Your task to perform on an android device: Show the shopping cart on amazon.com. Add lenovo thinkpad to the cart on amazon.com, then select checkout. Image 0: 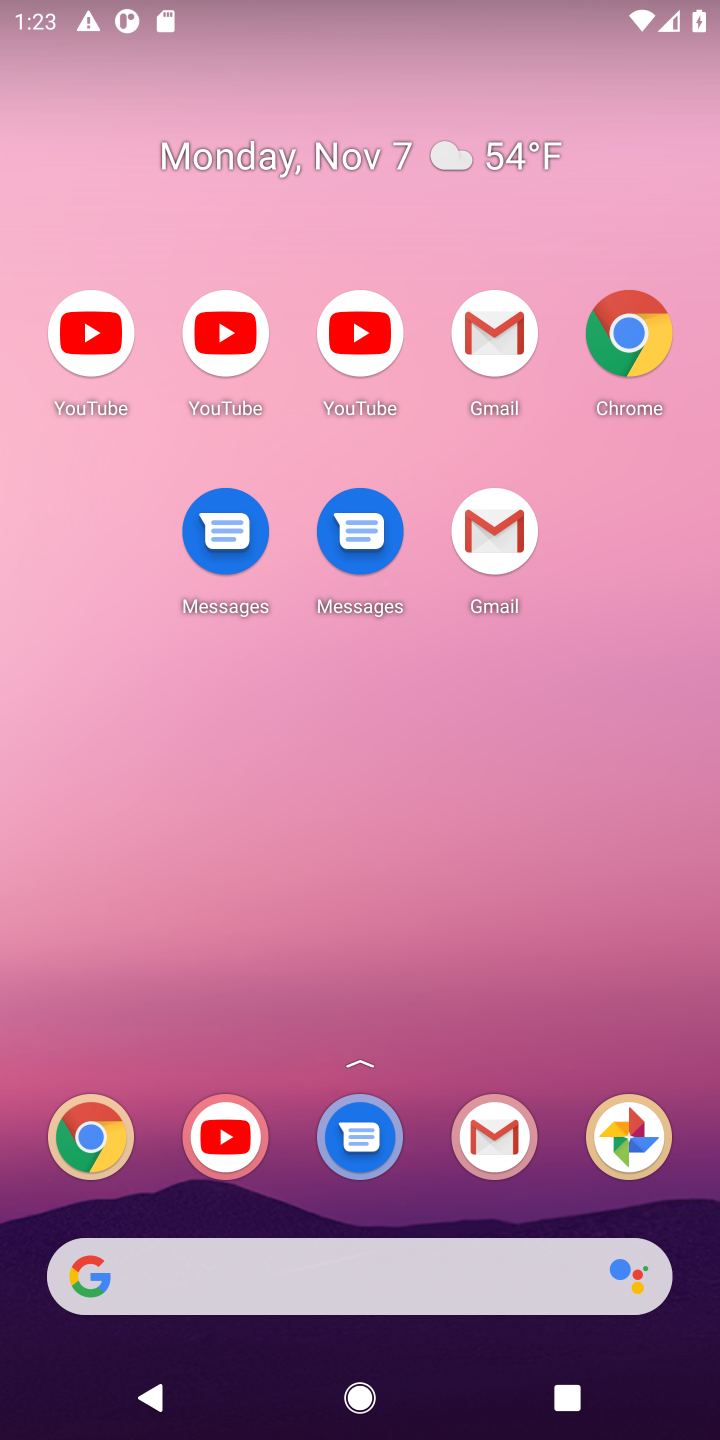
Step 0: drag from (408, 971) to (384, 80)
Your task to perform on an android device: Show the shopping cart on amazon.com. Add lenovo thinkpad to the cart on amazon.com, then select checkout. Image 1: 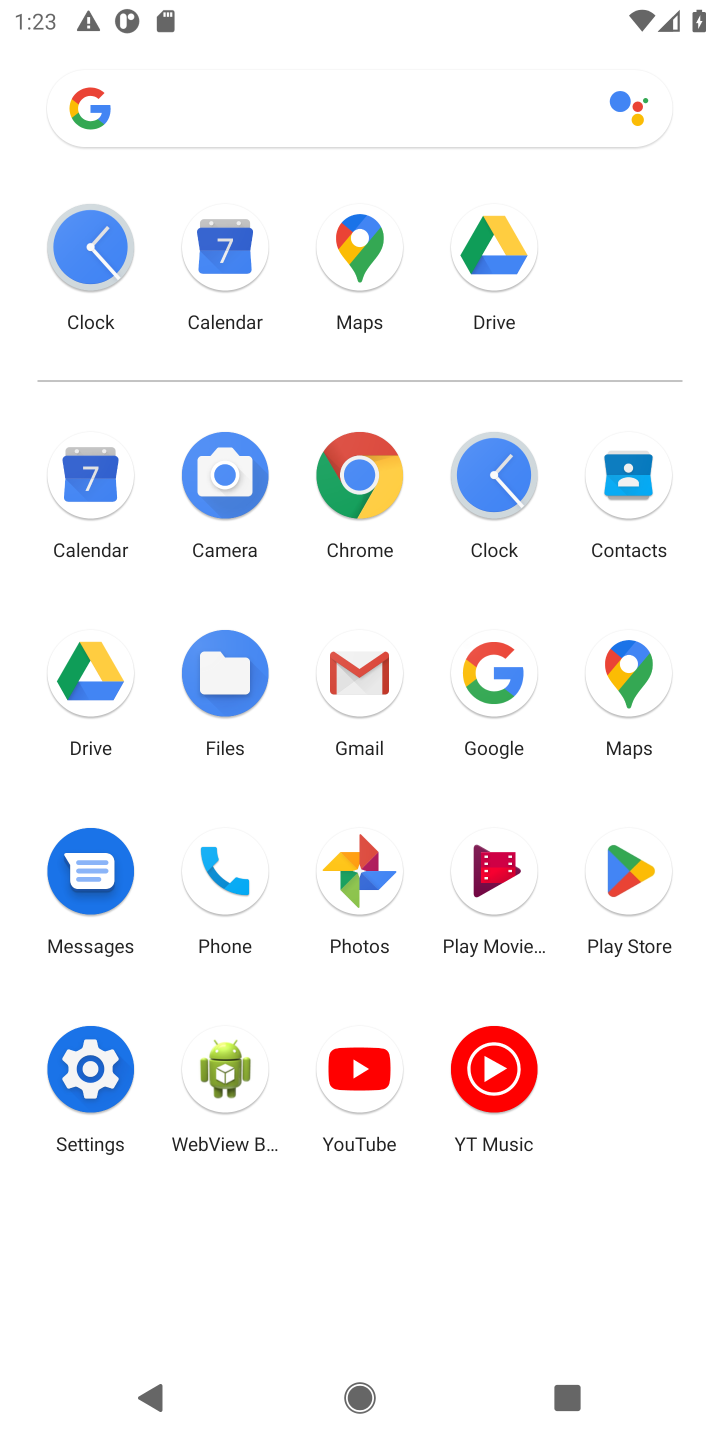
Step 1: click (357, 498)
Your task to perform on an android device: Show the shopping cart on amazon.com. Add lenovo thinkpad to the cart on amazon.com, then select checkout. Image 2: 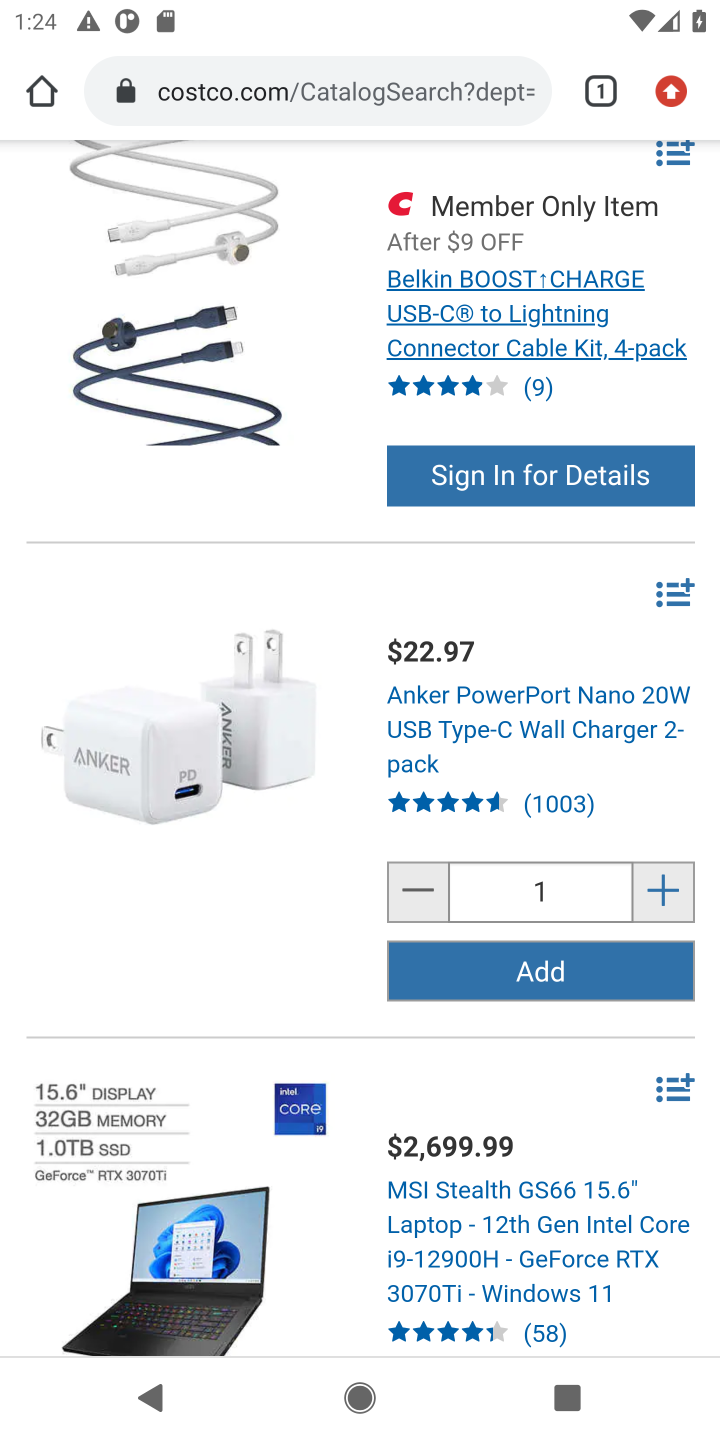
Step 2: click (390, 86)
Your task to perform on an android device: Show the shopping cart on amazon.com. Add lenovo thinkpad to the cart on amazon.com, then select checkout. Image 3: 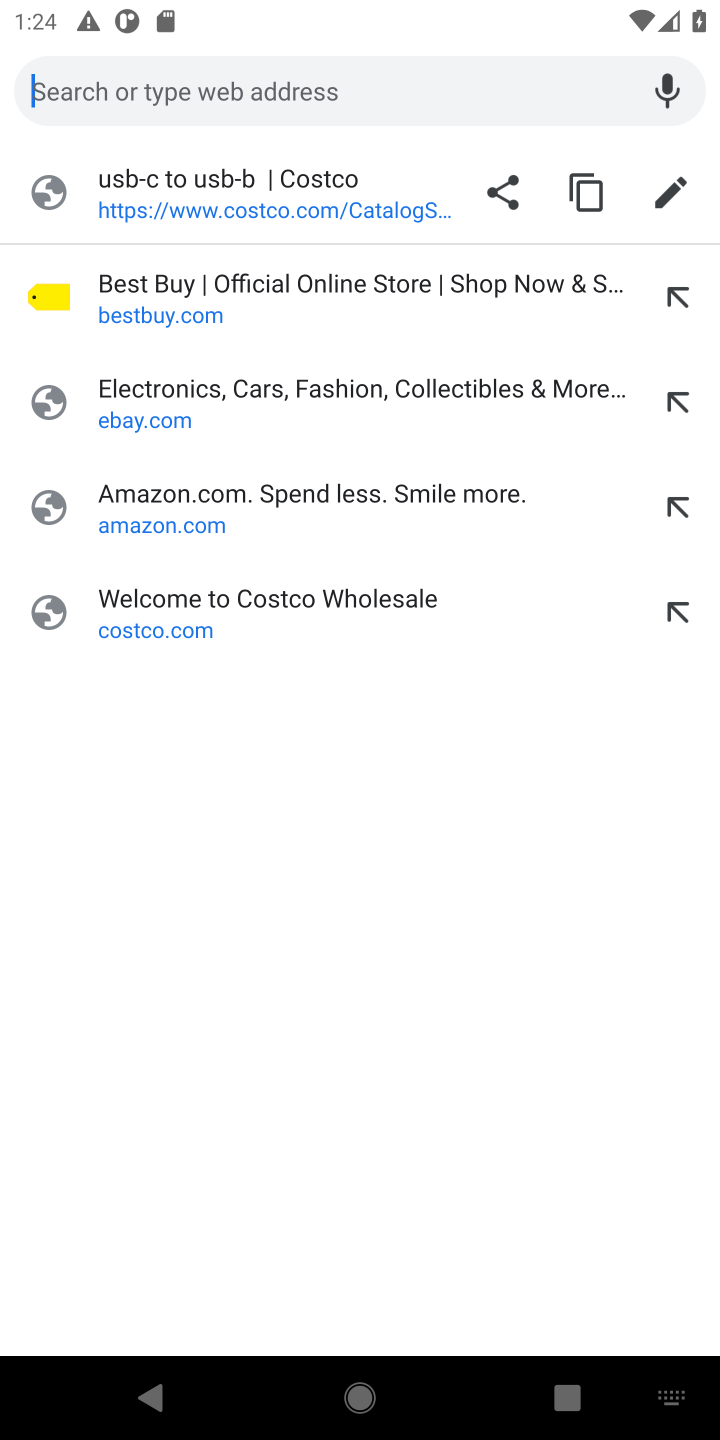
Step 3: type "amazon.com"
Your task to perform on an android device: Show the shopping cart on amazon.com. Add lenovo thinkpad to the cart on amazon.com, then select checkout. Image 4: 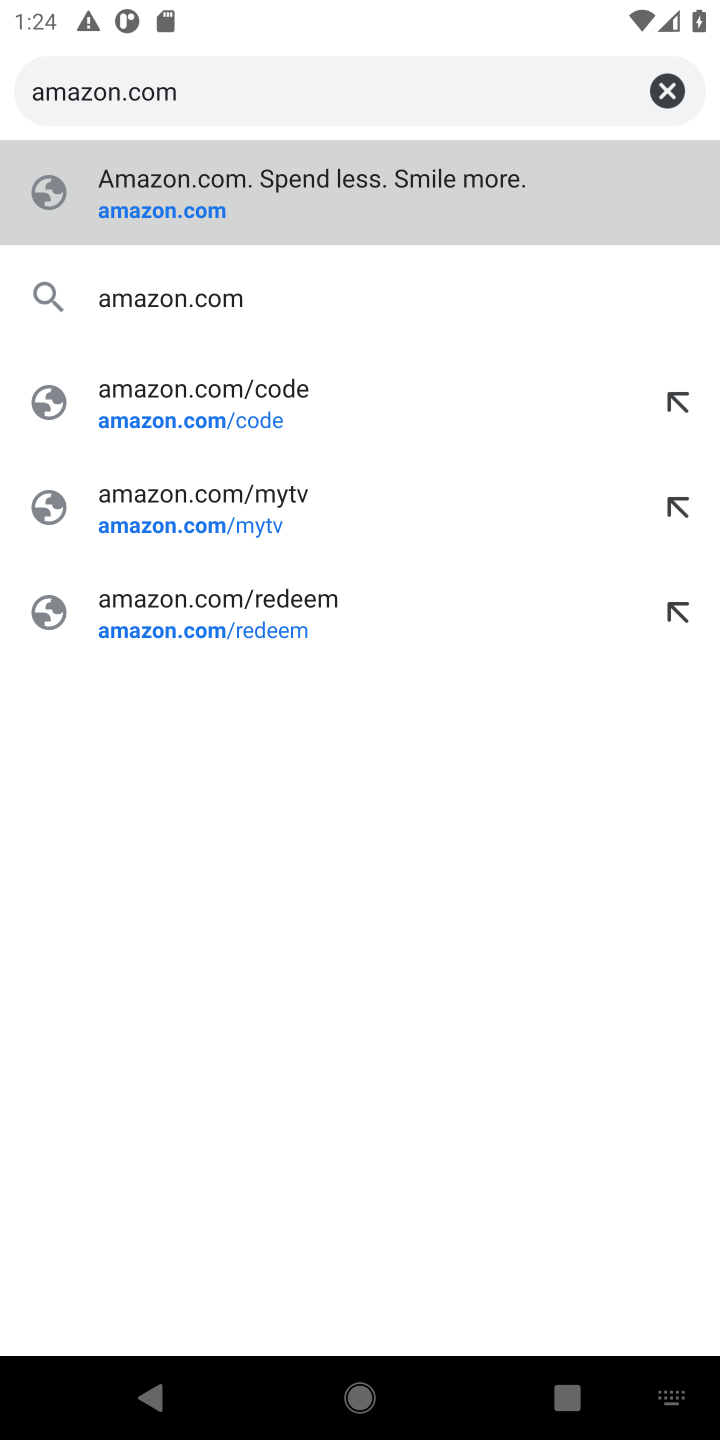
Step 4: press enter
Your task to perform on an android device: Show the shopping cart on amazon.com. Add lenovo thinkpad to the cart on amazon.com, then select checkout. Image 5: 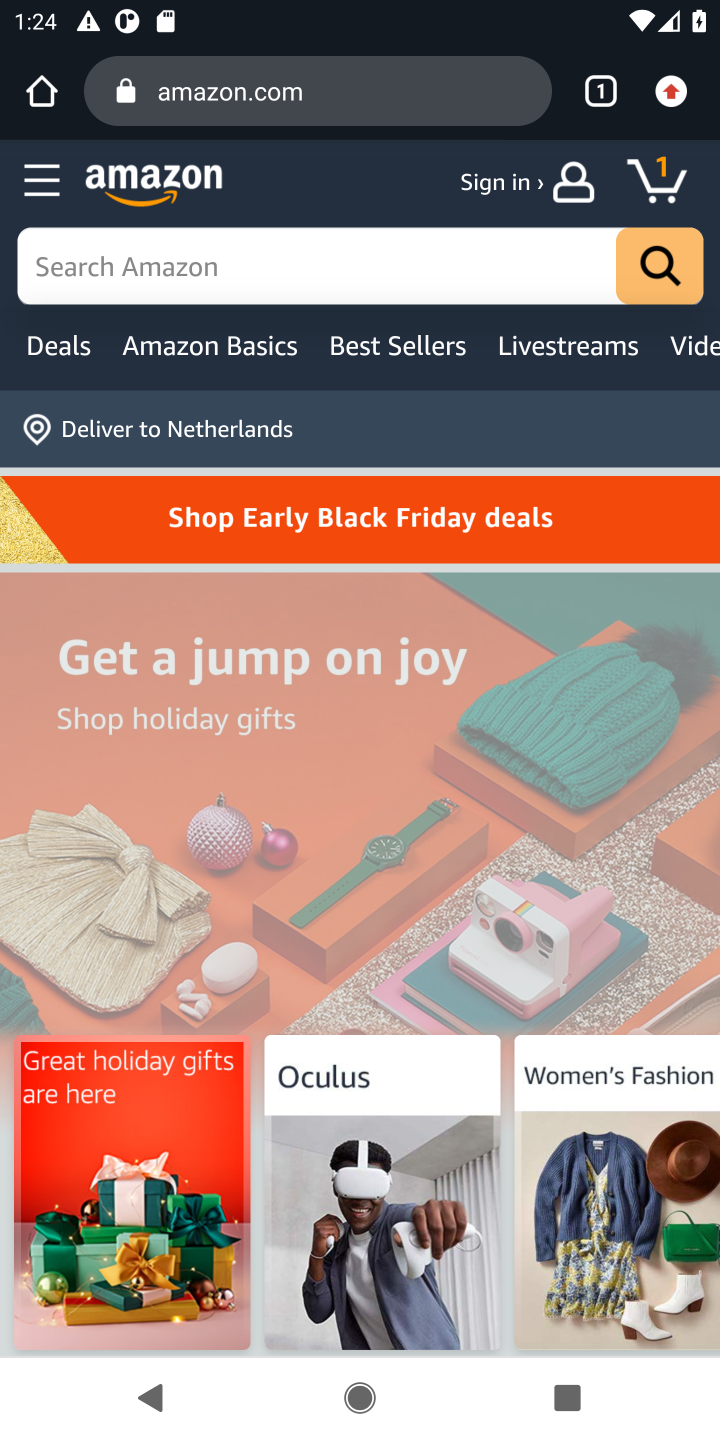
Step 5: click (663, 186)
Your task to perform on an android device: Show the shopping cart on amazon.com. Add lenovo thinkpad to the cart on amazon.com, then select checkout. Image 6: 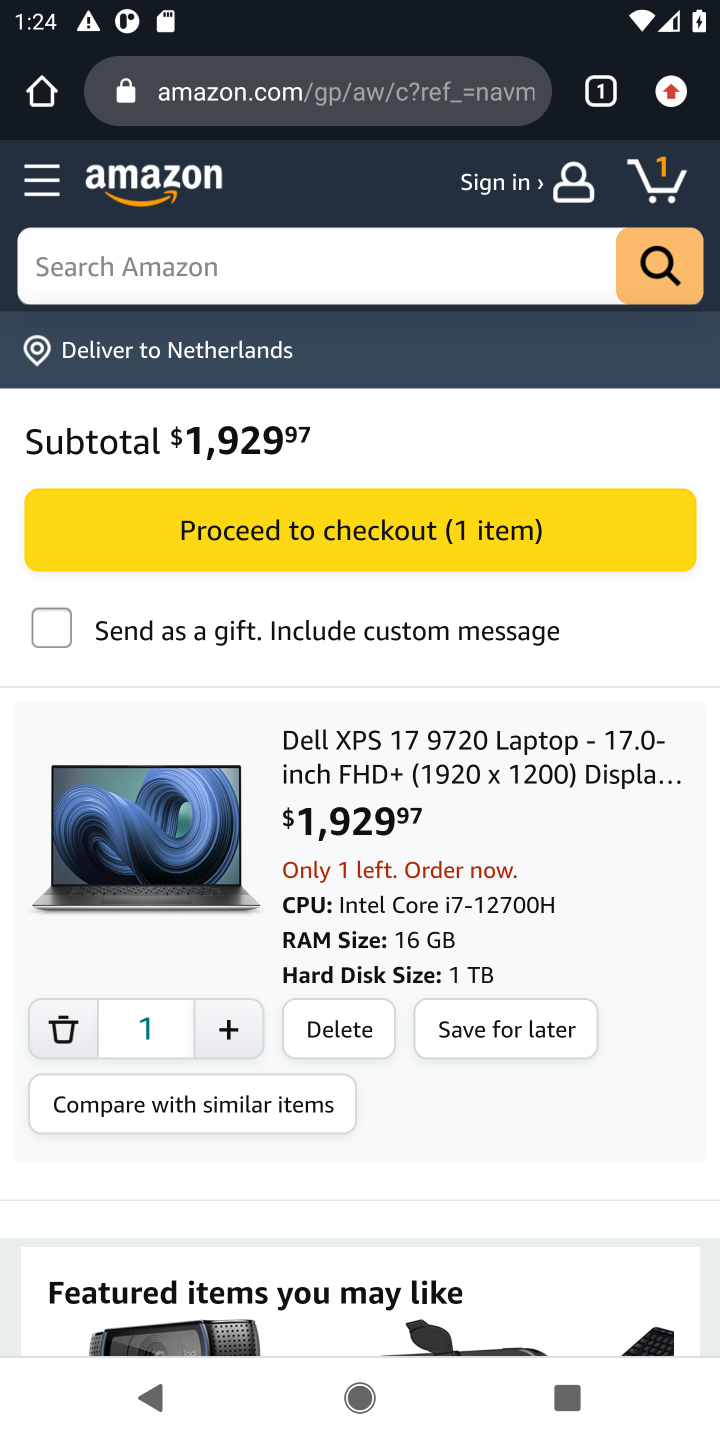
Step 6: click (662, 173)
Your task to perform on an android device: Show the shopping cart on amazon.com. Add lenovo thinkpad to the cart on amazon.com, then select checkout. Image 7: 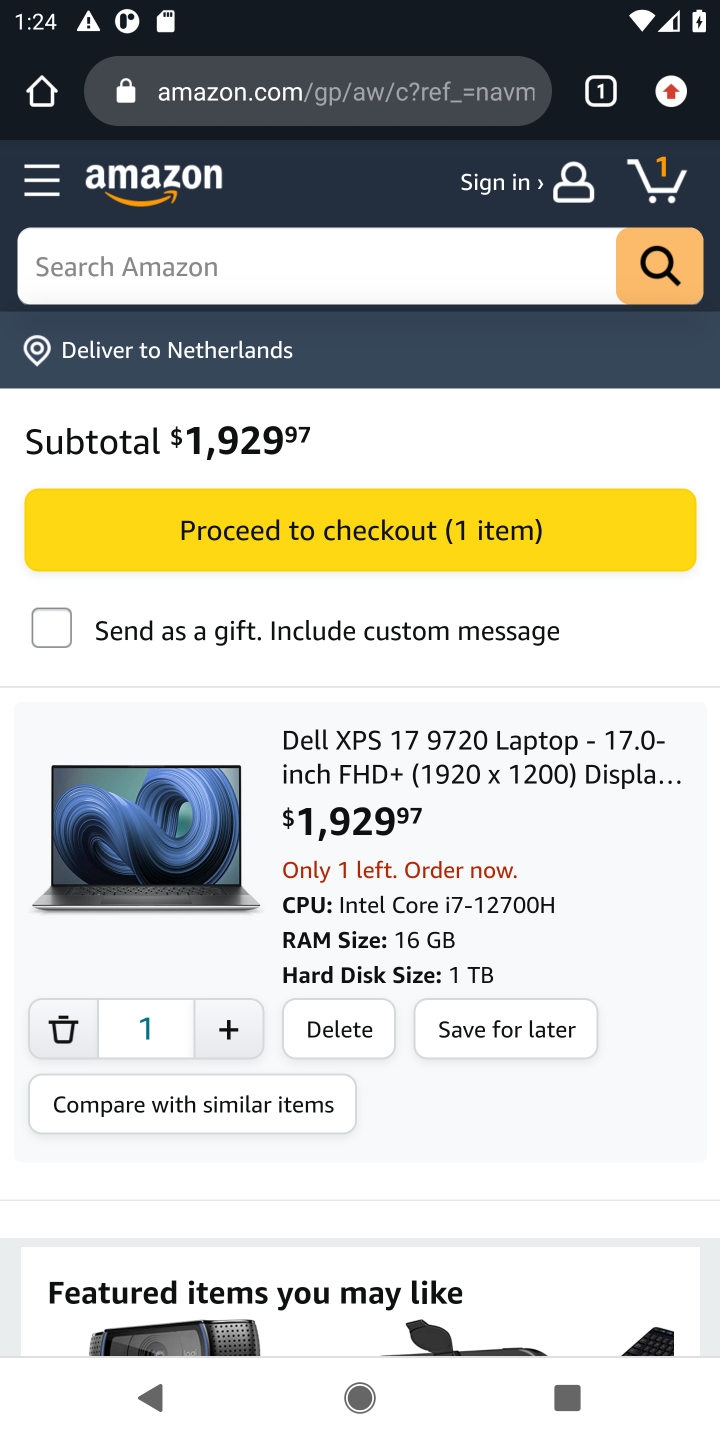
Step 7: click (404, 281)
Your task to perform on an android device: Show the shopping cart on amazon.com. Add lenovo thinkpad to the cart on amazon.com, then select checkout. Image 8: 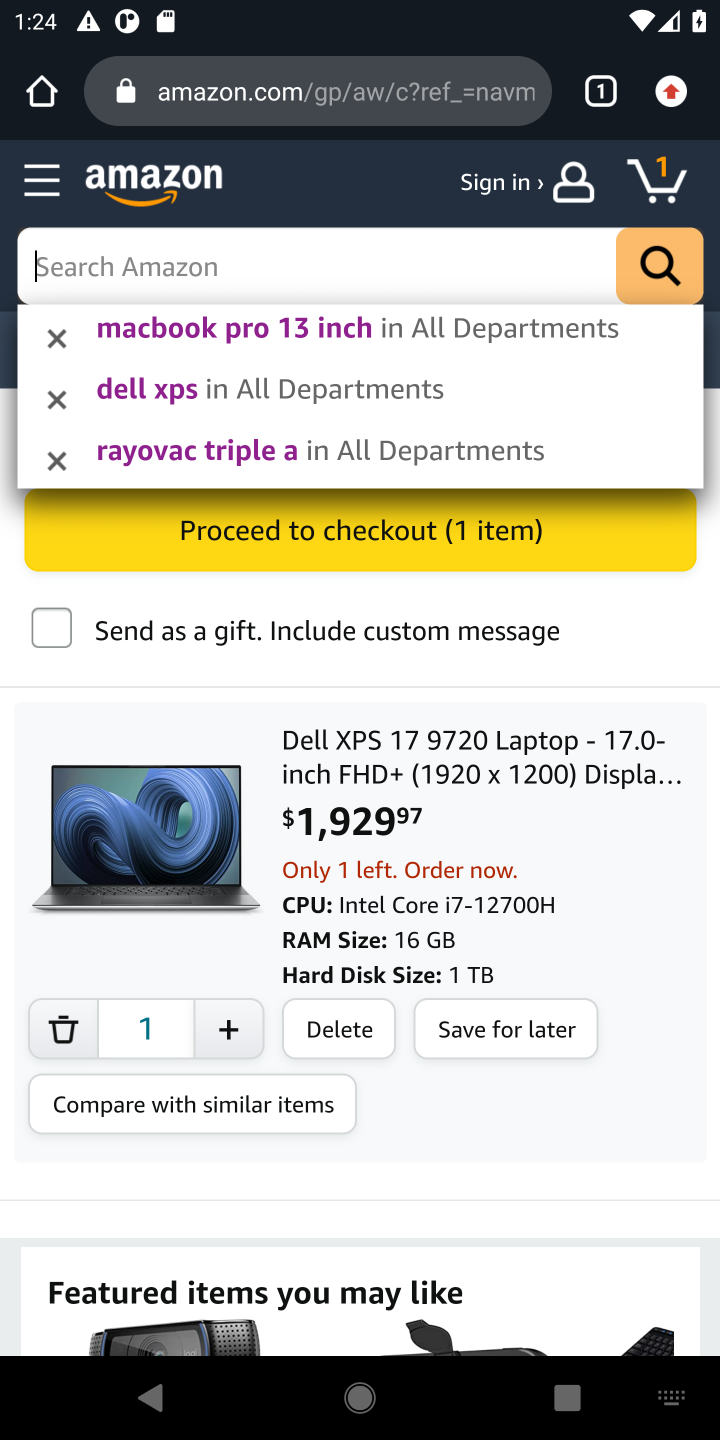
Step 8: type "lenovo thinkpad"
Your task to perform on an android device: Show the shopping cart on amazon.com. Add lenovo thinkpad to the cart on amazon.com, then select checkout. Image 9: 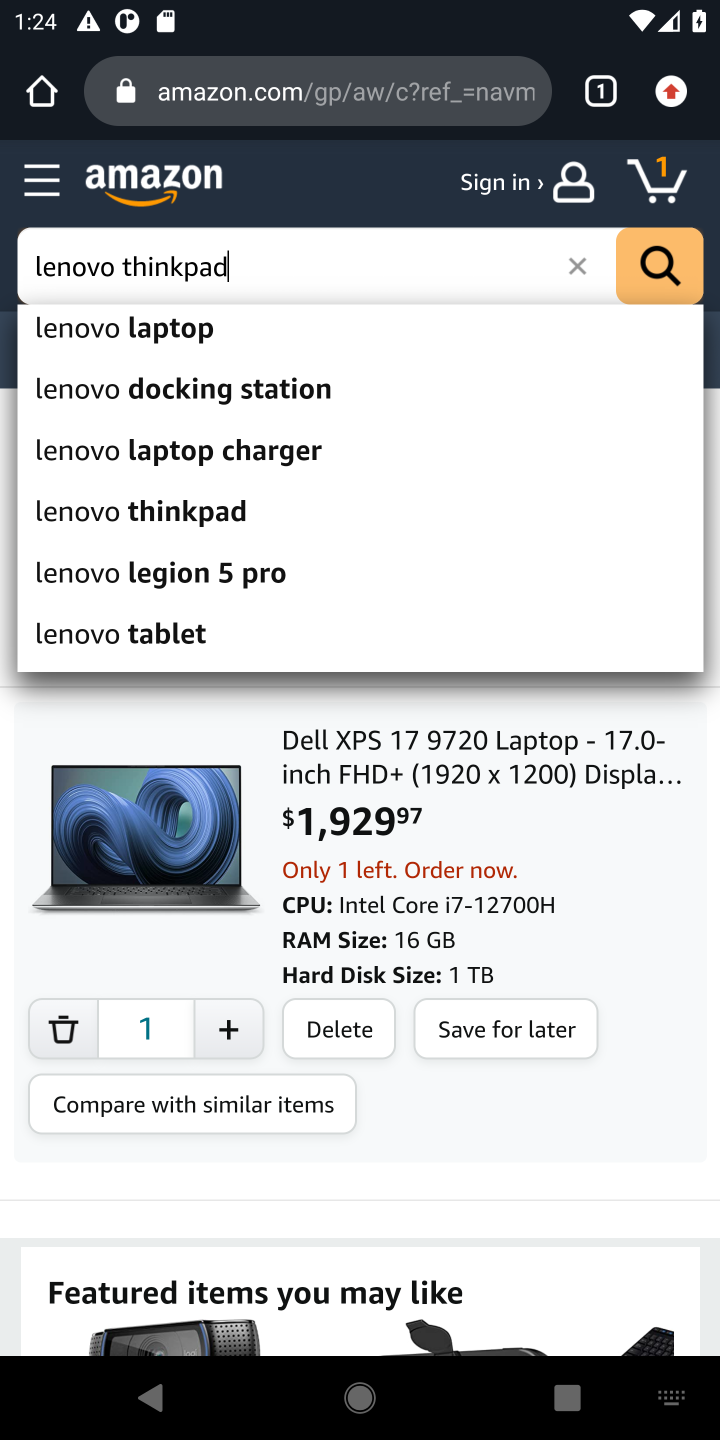
Step 9: press enter
Your task to perform on an android device: Show the shopping cart on amazon.com. Add lenovo thinkpad to the cart on amazon.com, then select checkout. Image 10: 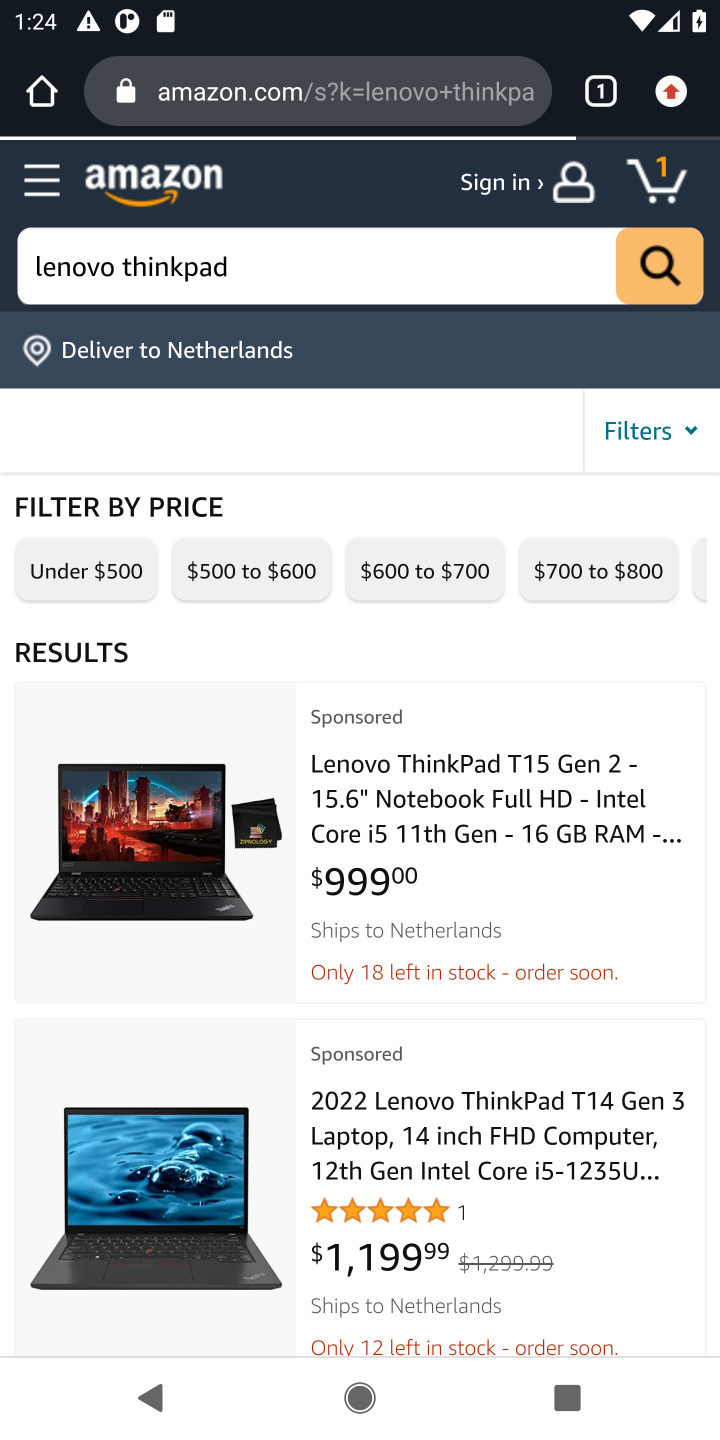
Step 10: drag from (369, 1221) to (239, 274)
Your task to perform on an android device: Show the shopping cart on amazon.com. Add lenovo thinkpad to the cart on amazon.com, then select checkout. Image 11: 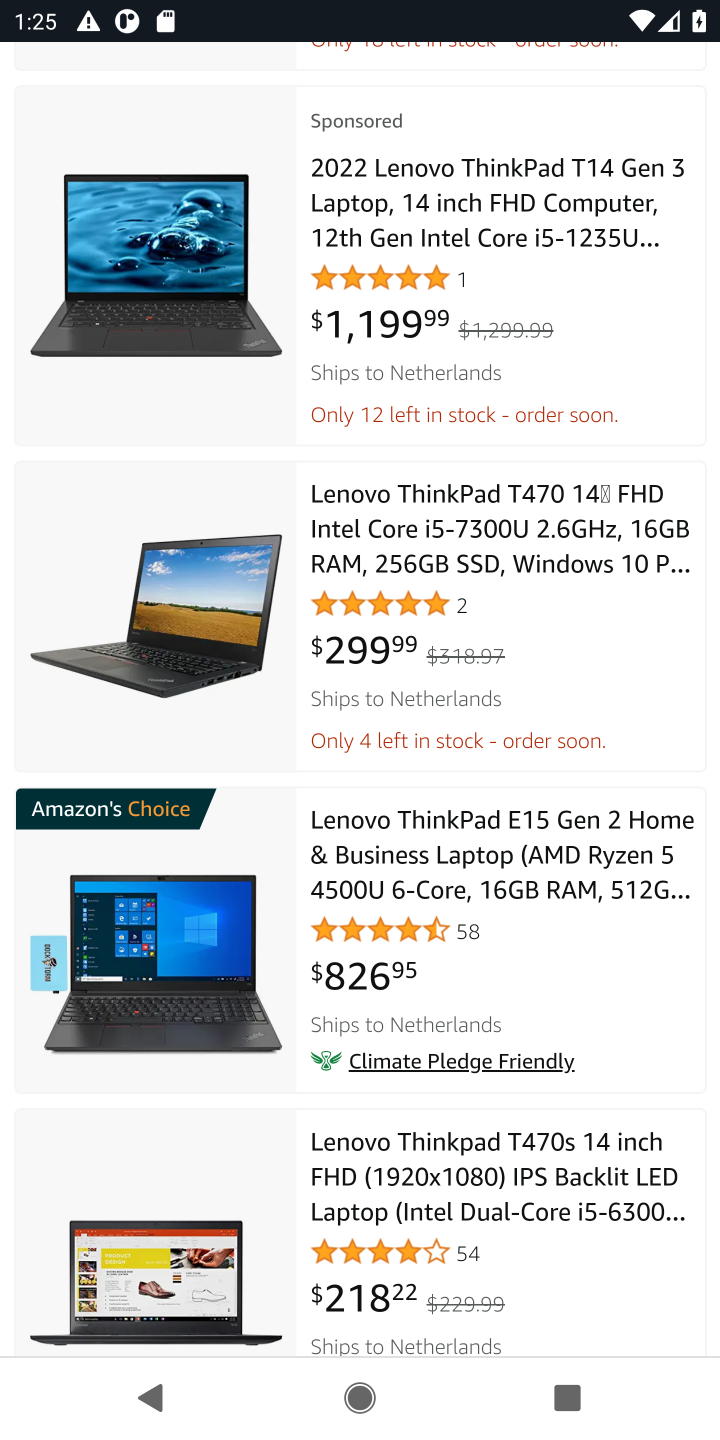
Step 11: click (494, 901)
Your task to perform on an android device: Show the shopping cart on amazon.com. Add lenovo thinkpad to the cart on amazon.com, then select checkout. Image 12: 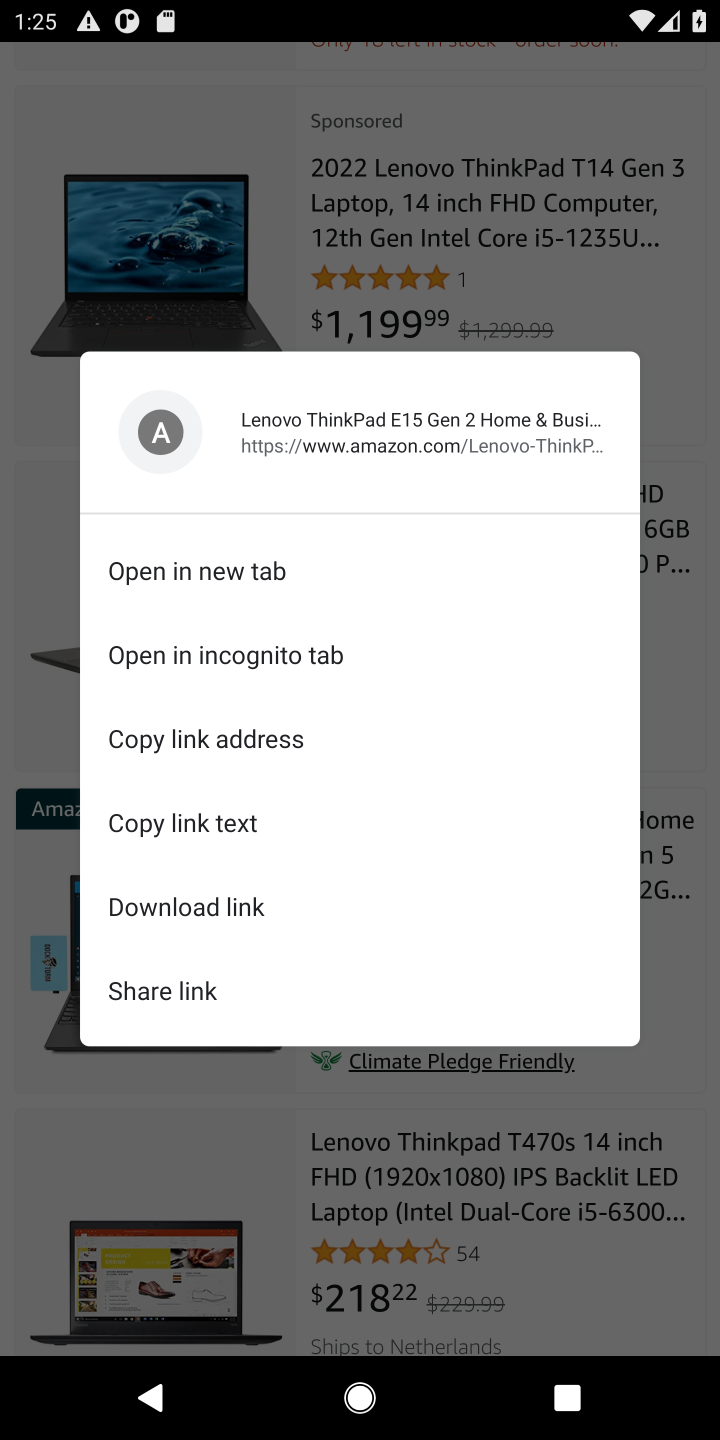
Step 12: click (684, 801)
Your task to perform on an android device: Show the shopping cart on amazon.com. Add lenovo thinkpad to the cart on amazon.com, then select checkout. Image 13: 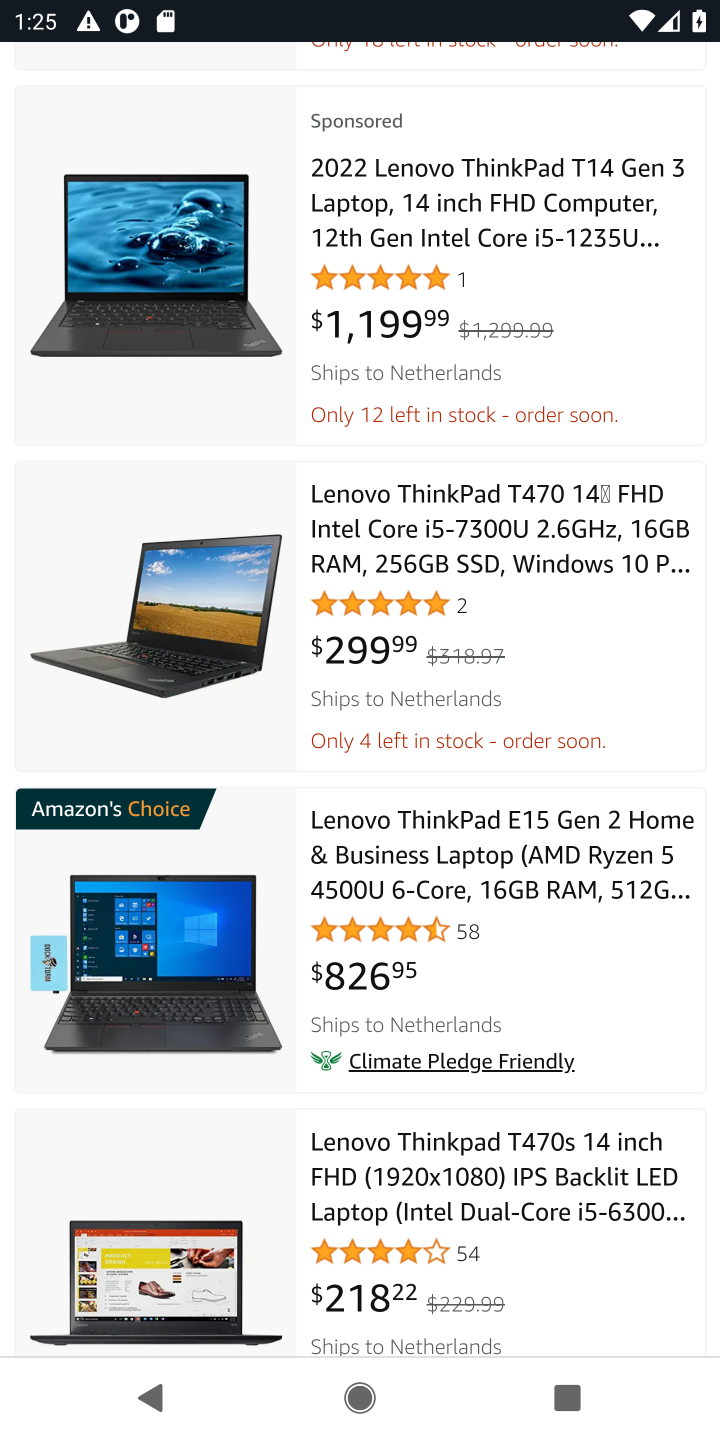
Step 13: click (400, 855)
Your task to perform on an android device: Show the shopping cart on amazon.com. Add lenovo thinkpad to the cart on amazon.com, then select checkout. Image 14: 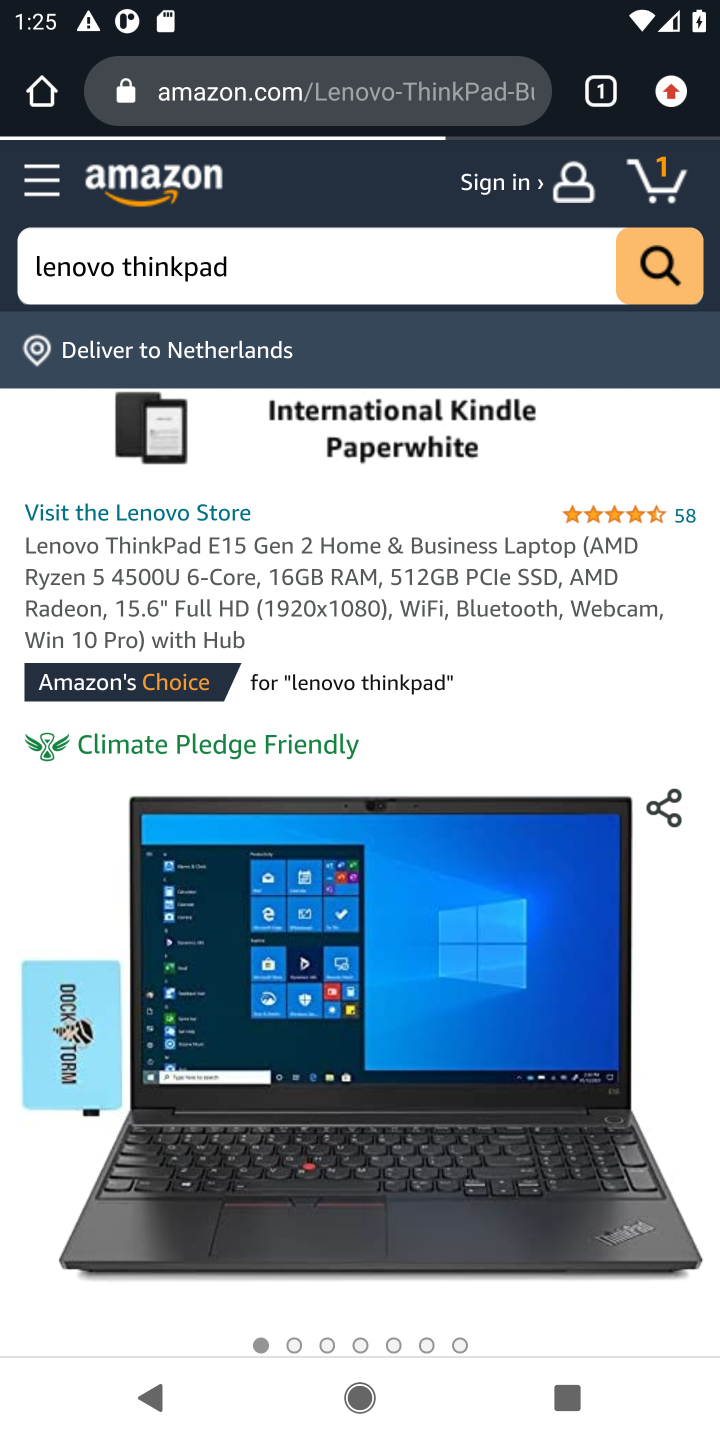
Step 14: press back button
Your task to perform on an android device: Show the shopping cart on amazon.com. Add lenovo thinkpad to the cart on amazon.com, then select checkout. Image 15: 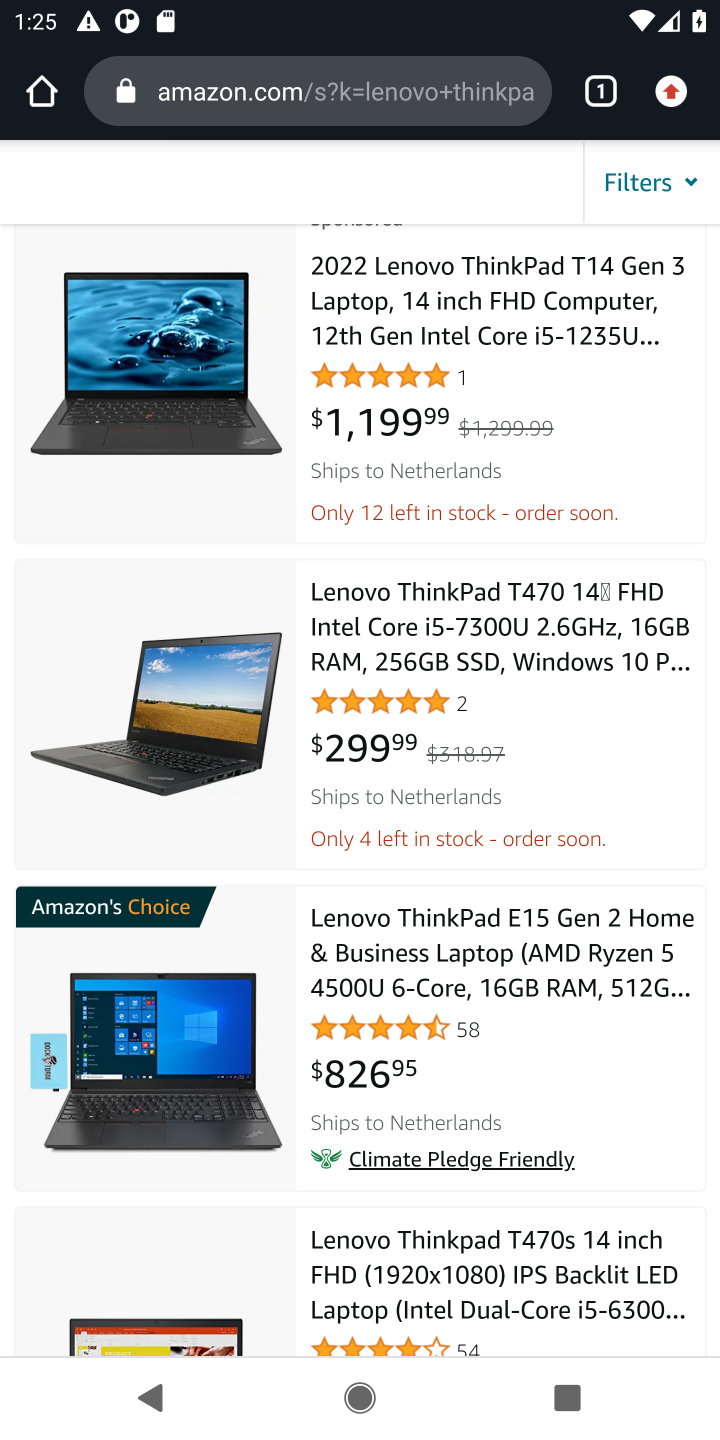
Step 15: drag from (468, 527) to (481, 869)
Your task to perform on an android device: Show the shopping cart on amazon.com. Add lenovo thinkpad to the cart on amazon.com, then select checkout. Image 16: 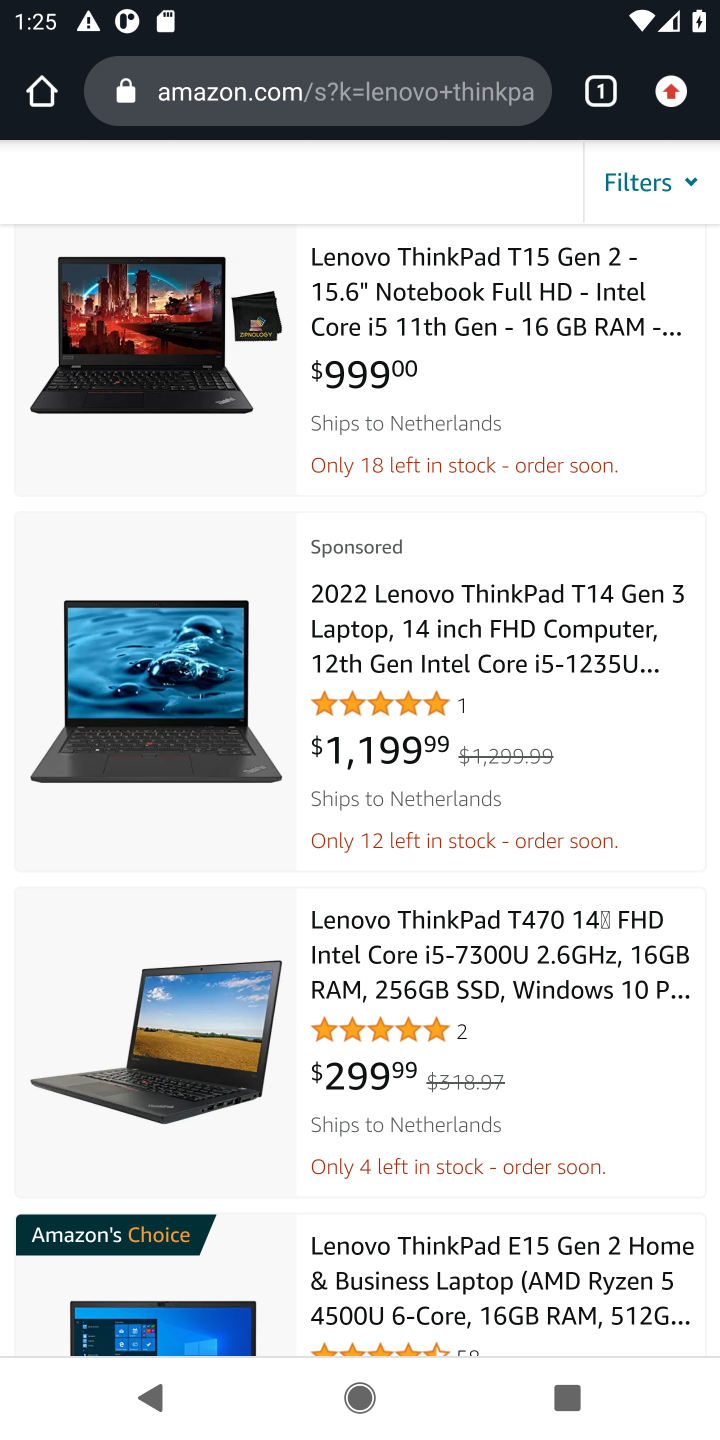
Step 16: click (431, 940)
Your task to perform on an android device: Show the shopping cart on amazon.com. Add lenovo thinkpad to the cart on amazon.com, then select checkout. Image 17: 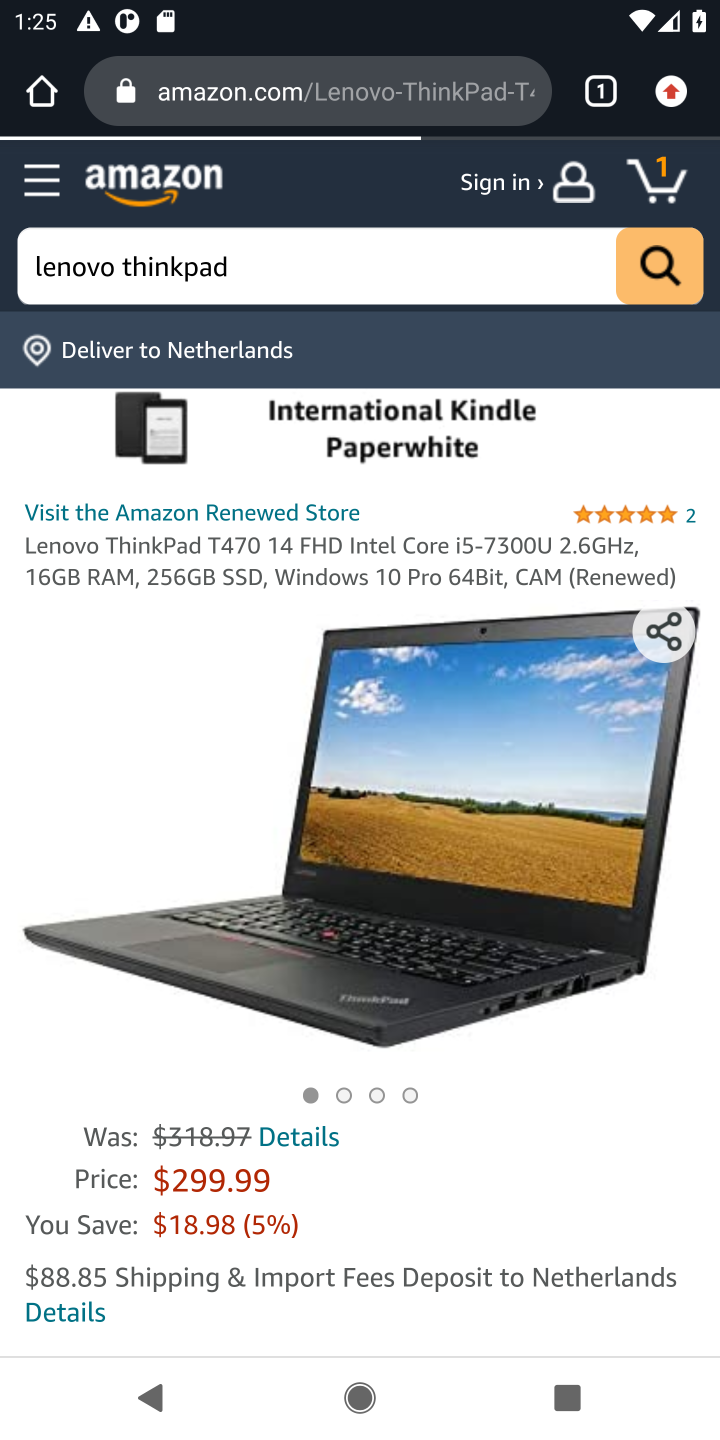
Step 17: drag from (474, 1042) to (500, 287)
Your task to perform on an android device: Show the shopping cart on amazon.com. Add lenovo thinkpad to the cart on amazon.com, then select checkout. Image 18: 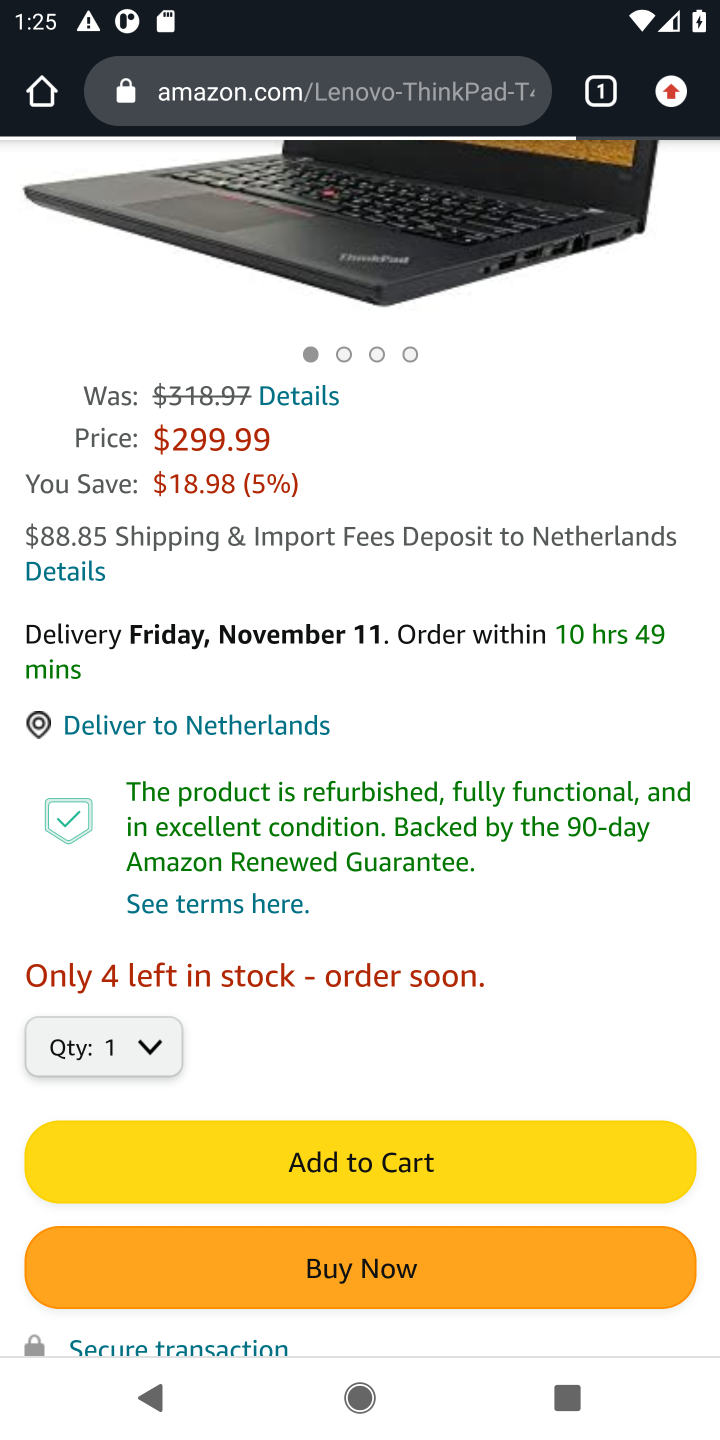
Step 18: click (461, 1135)
Your task to perform on an android device: Show the shopping cart on amazon.com. Add lenovo thinkpad to the cart on amazon.com, then select checkout. Image 19: 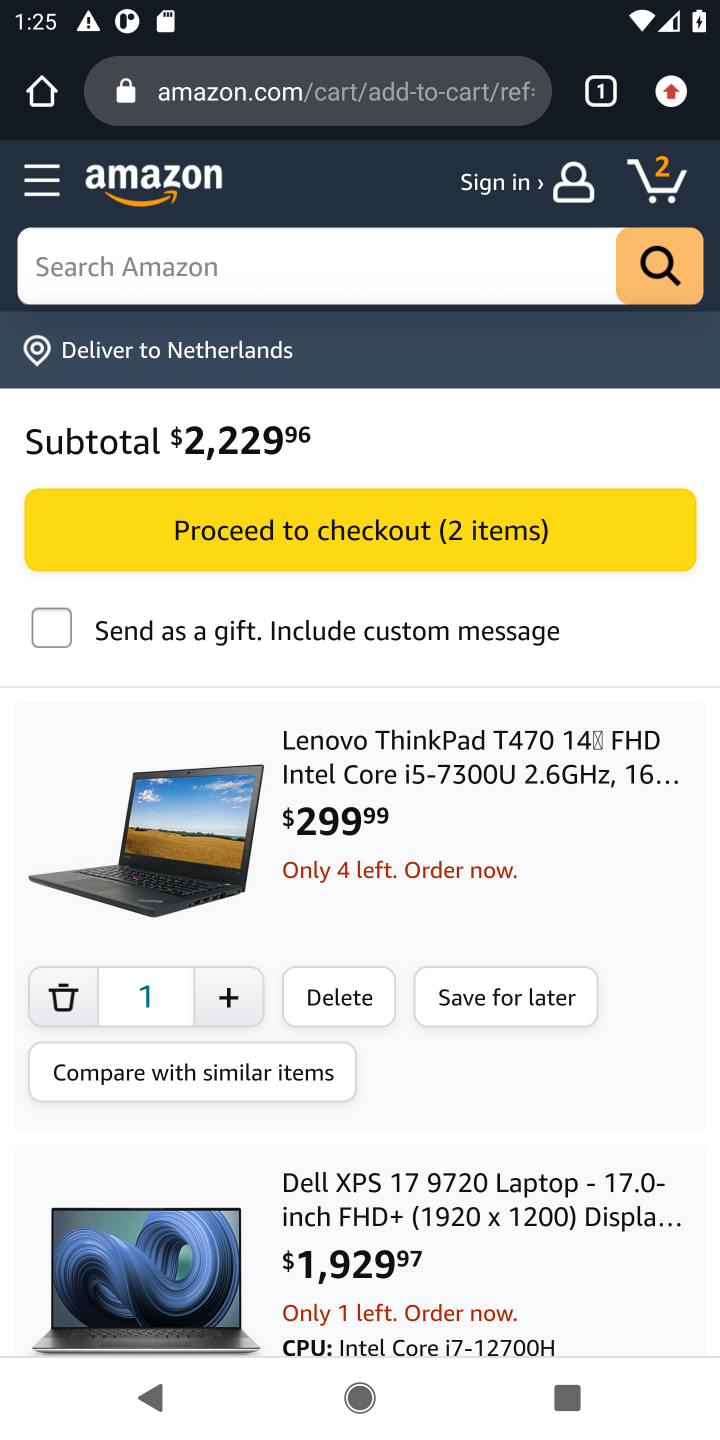
Step 19: click (458, 546)
Your task to perform on an android device: Show the shopping cart on amazon.com. Add lenovo thinkpad to the cart on amazon.com, then select checkout. Image 20: 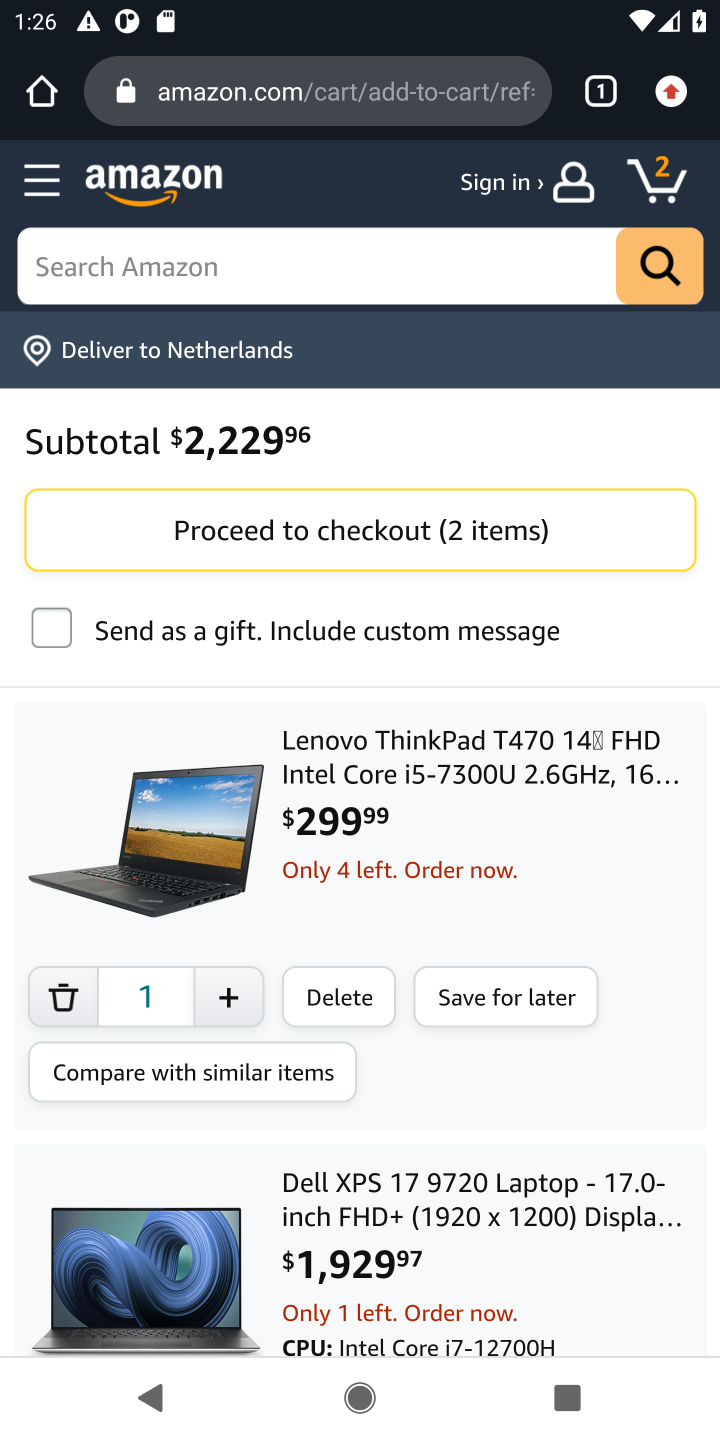
Step 20: click (420, 529)
Your task to perform on an android device: Show the shopping cart on amazon.com. Add lenovo thinkpad to the cart on amazon.com, then select checkout. Image 21: 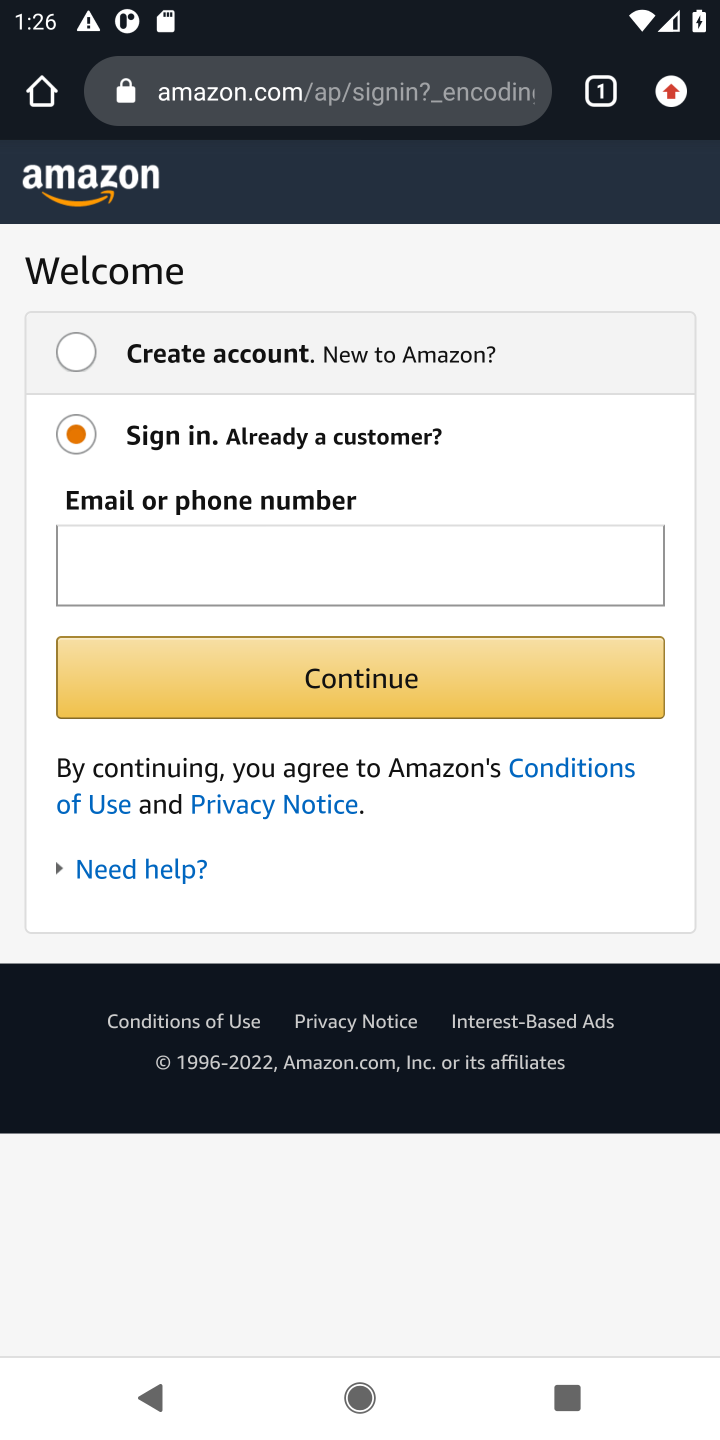
Step 21: task complete